Your task to perform on an android device: add a label to a message in the gmail app Image 0: 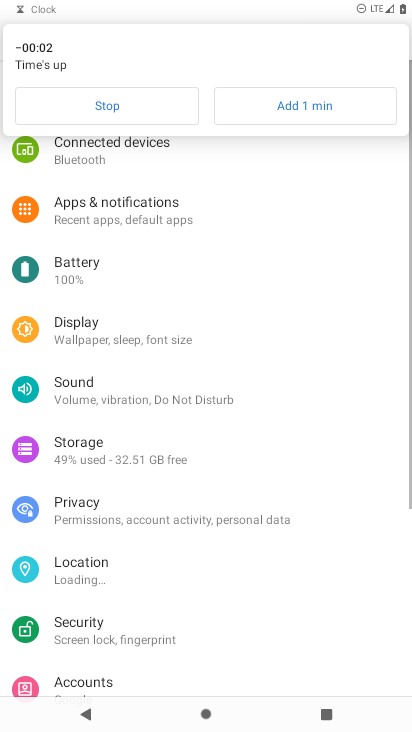
Step 0: press home button
Your task to perform on an android device: add a label to a message in the gmail app Image 1: 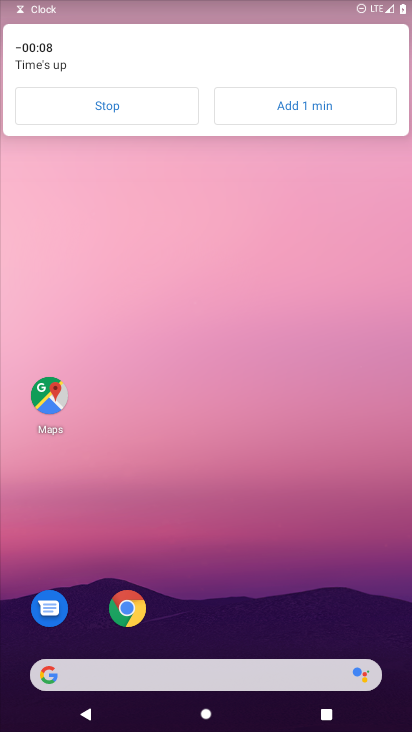
Step 1: click (103, 99)
Your task to perform on an android device: add a label to a message in the gmail app Image 2: 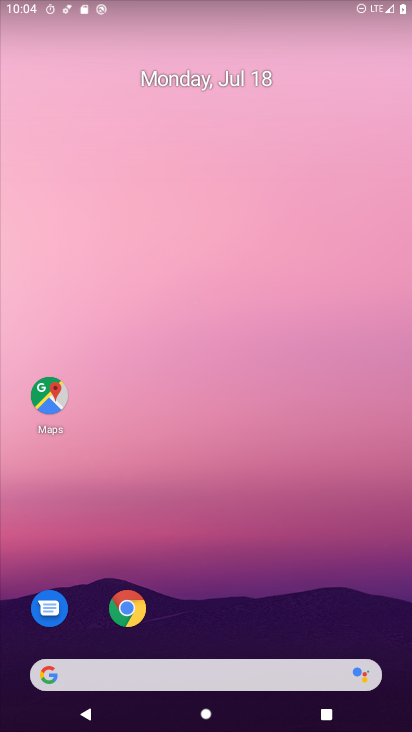
Step 2: drag from (200, 628) to (184, 246)
Your task to perform on an android device: add a label to a message in the gmail app Image 3: 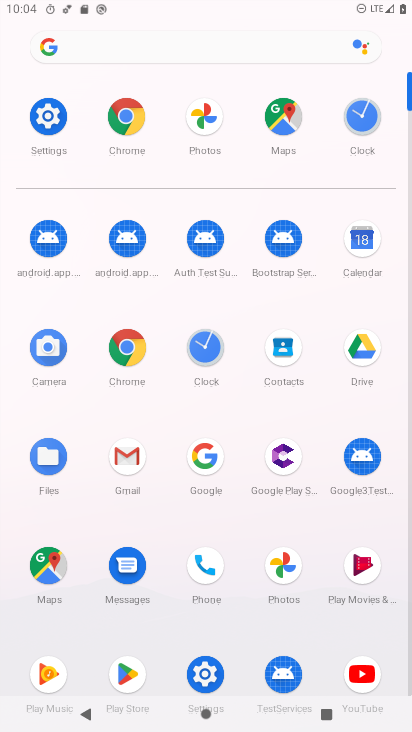
Step 3: click (129, 477)
Your task to perform on an android device: add a label to a message in the gmail app Image 4: 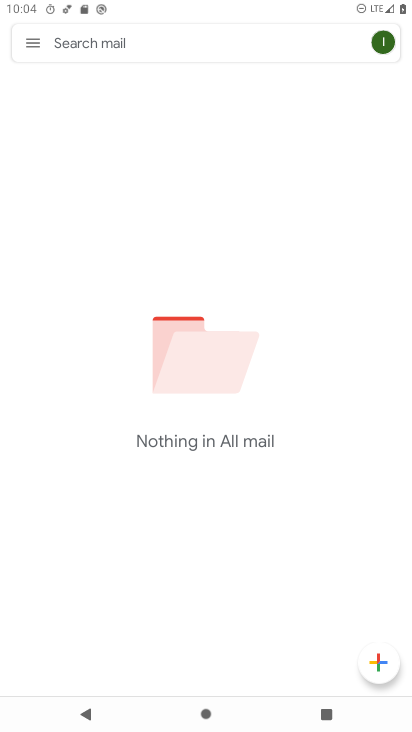
Step 4: task complete